Your task to perform on an android device: Turn off the flashlight Image 0: 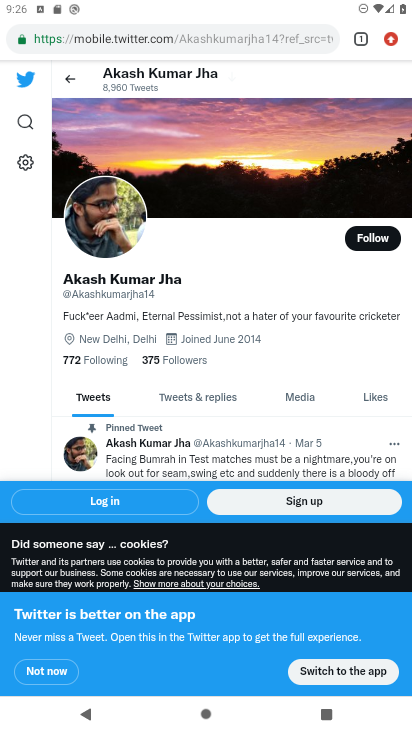
Step 0: task impossible